Your task to perform on an android device: Open CNN.com Image 0: 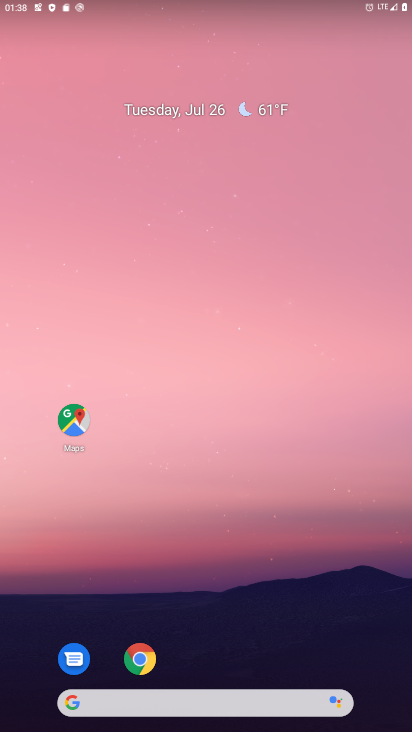
Step 0: drag from (261, 498) to (289, 35)
Your task to perform on an android device: Open CNN.com Image 1: 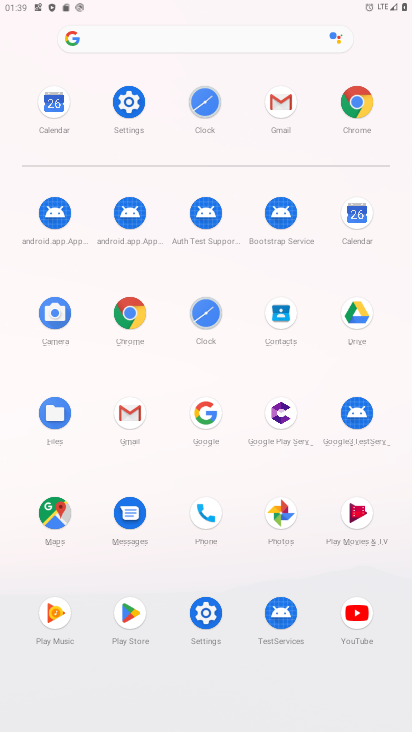
Step 1: click (369, 99)
Your task to perform on an android device: Open CNN.com Image 2: 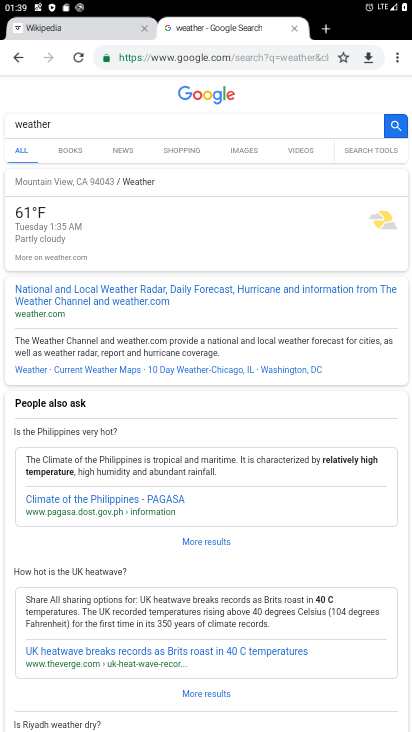
Step 2: click (245, 58)
Your task to perform on an android device: Open CNN.com Image 3: 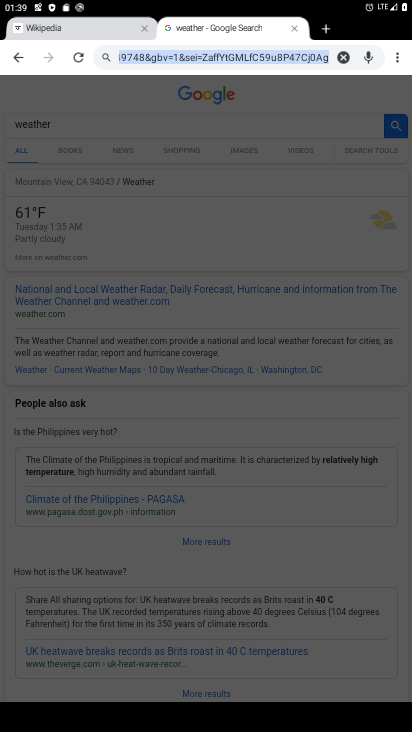
Step 3: type "cnn.com"
Your task to perform on an android device: Open CNN.com Image 4: 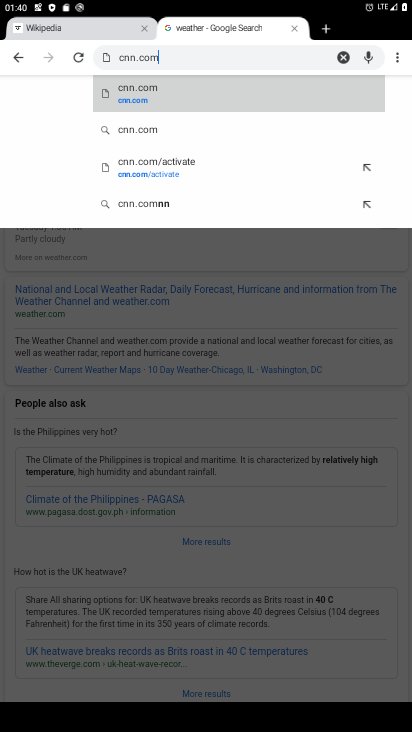
Step 4: click (206, 100)
Your task to perform on an android device: Open CNN.com Image 5: 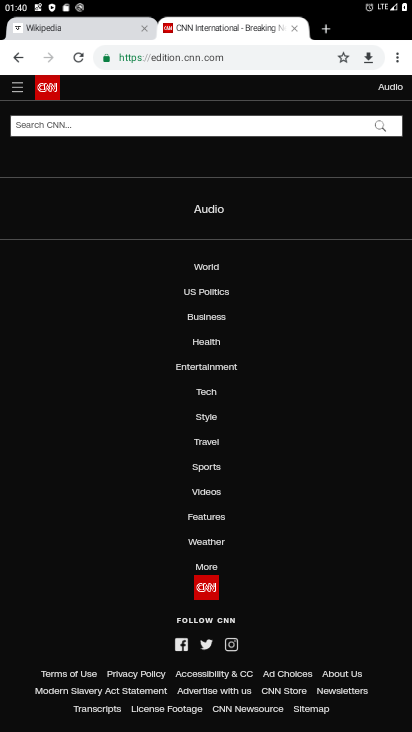
Step 5: task complete